Your task to perform on an android device: Open Android settings Image 0: 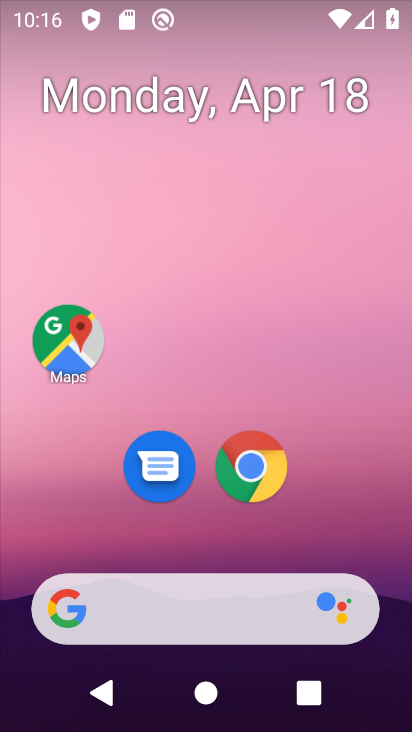
Step 0: drag from (251, 613) to (261, 305)
Your task to perform on an android device: Open Android settings Image 1: 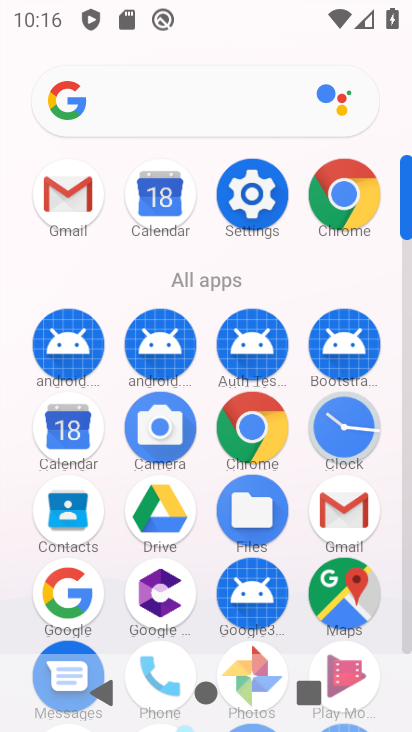
Step 1: click (238, 224)
Your task to perform on an android device: Open Android settings Image 2: 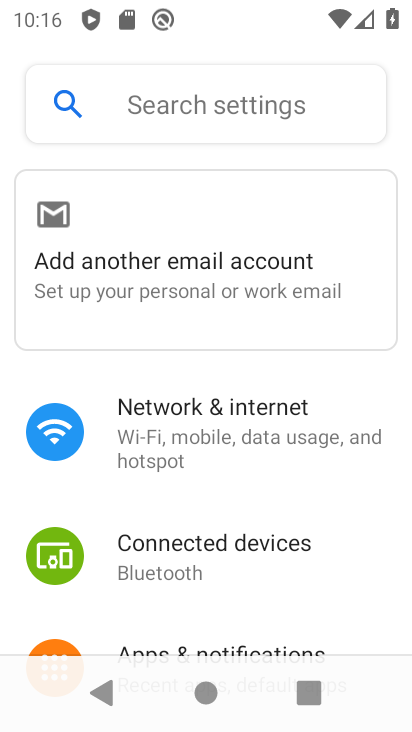
Step 2: drag from (232, 528) to (269, 229)
Your task to perform on an android device: Open Android settings Image 3: 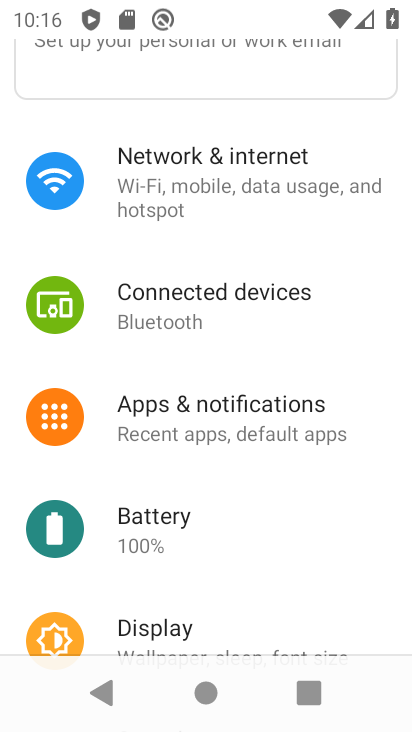
Step 3: drag from (286, 547) to (312, 157)
Your task to perform on an android device: Open Android settings Image 4: 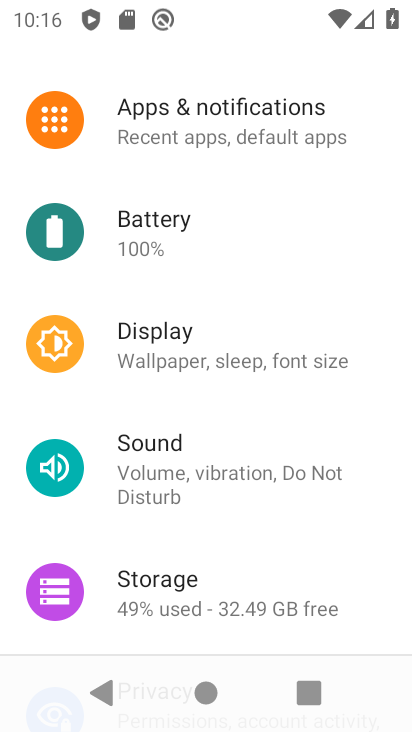
Step 4: drag from (265, 507) to (293, 118)
Your task to perform on an android device: Open Android settings Image 5: 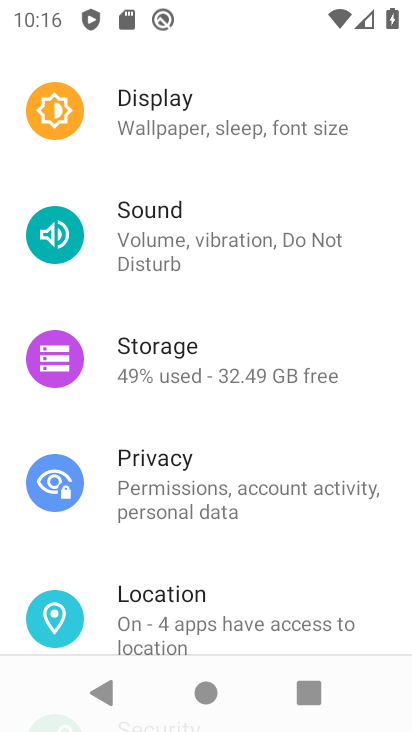
Step 5: drag from (234, 500) to (234, 249)
Your task to perform on an android device: Open Android settings Image 6: 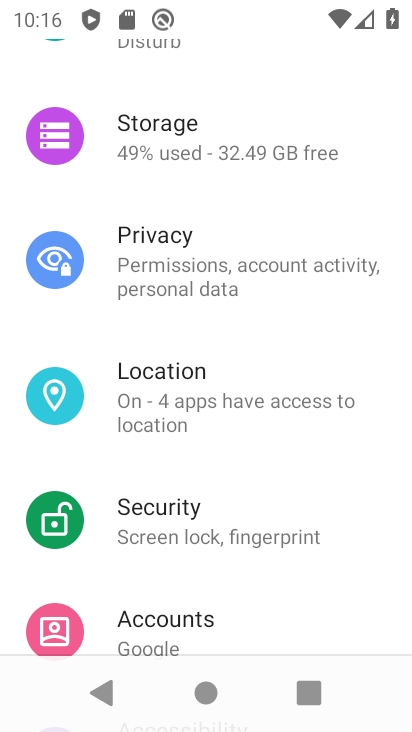
Step 6: drag from (260, 529) to (339, 46)
Your task to perform on an android device: Open Android settings Image 7: 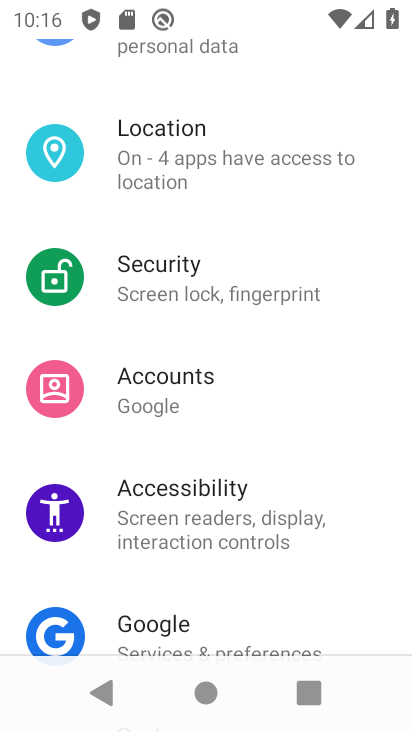
Step 7: drag from (243, 612) to (258, 264)
Your task to perform on an android device: Open Android settings Image 8: 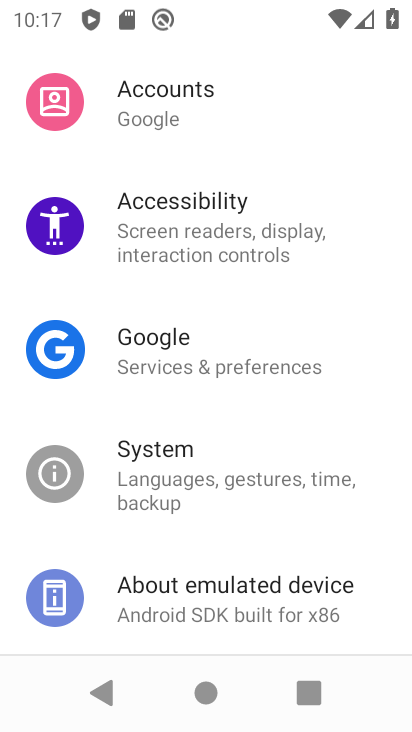
Step 8: click (231, 592)
Your task to perform on an android device: Open Android settings Image 9: 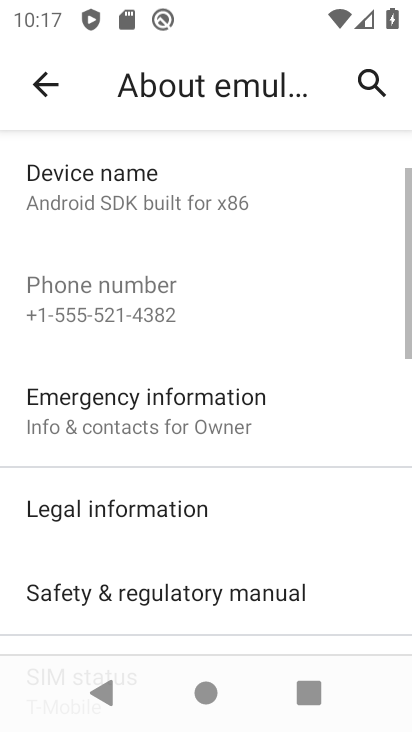
Step 9: drag from (229, 576) to (231, 194)
Your task to perform on an android device: Open Android settings Image 10: 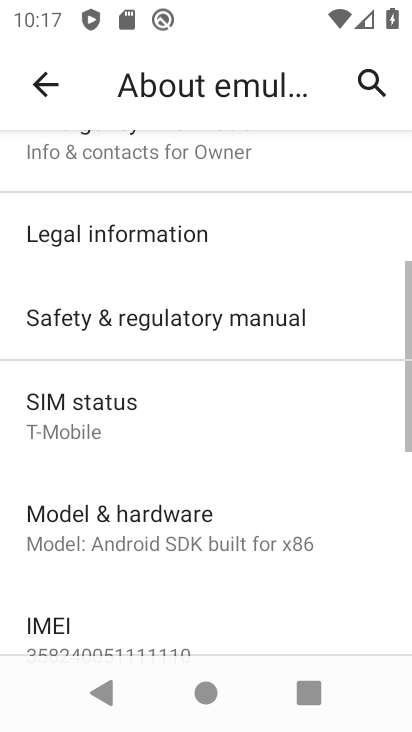
Step 10: drag from (218, 447) to (233, 222)
Your task to perform on an android device: Open Android settings Image 11: 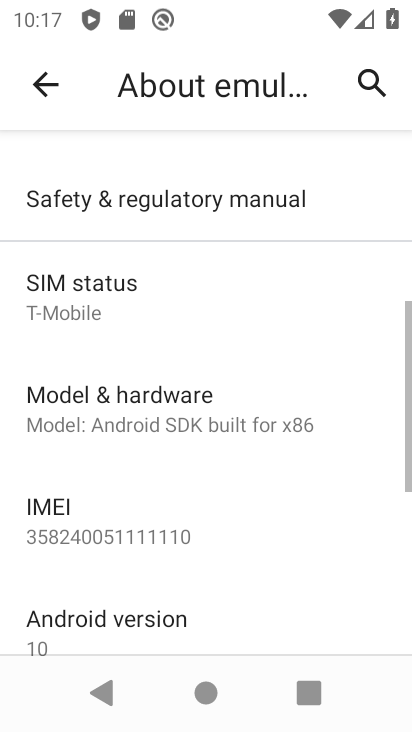
Step 11: click (223, 619)
Your task to perform on an android device: Open Android settings Image 12: 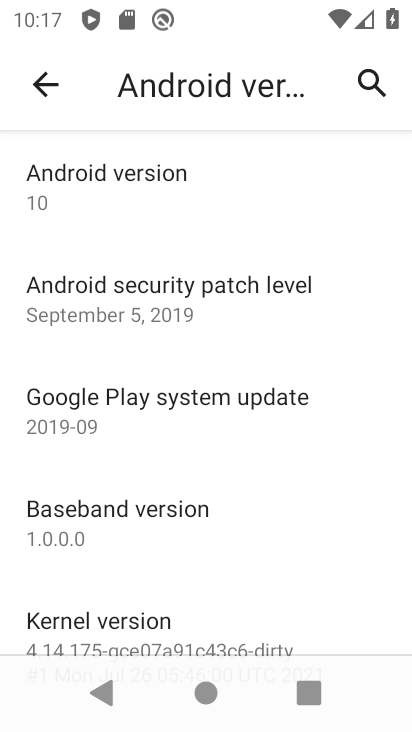
Step 12: click (208, 183)
Your task to perform on an android device: Open Android settings Image 13: 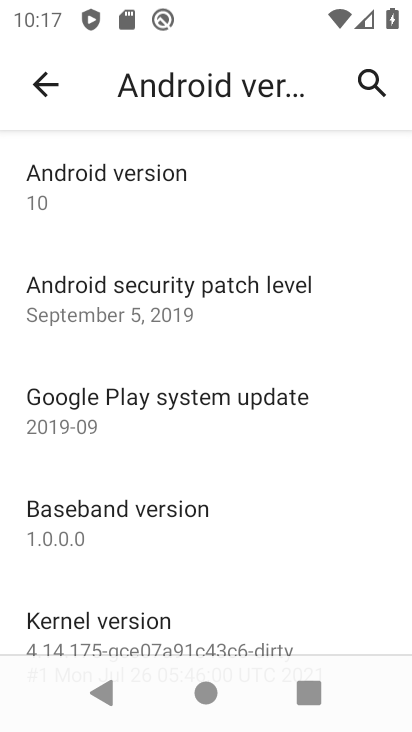
Step 13: task complete